Your task to perform on an android device: toggle notifications settings in the gmail app Image 0: 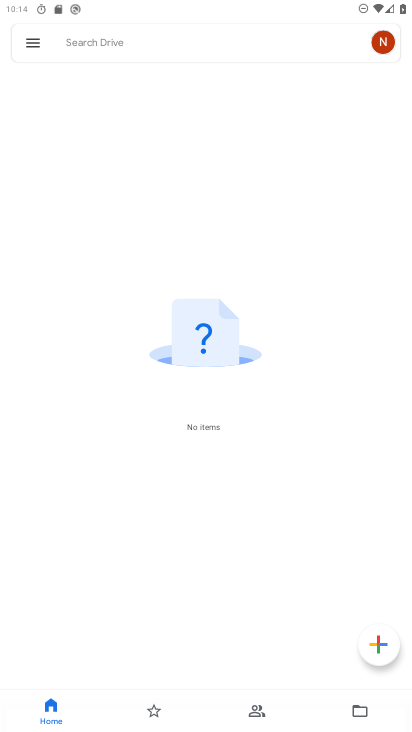
Step 0: press home button
Your task to perform on an android device: toggle notifications settings in the gmail app Image 1: 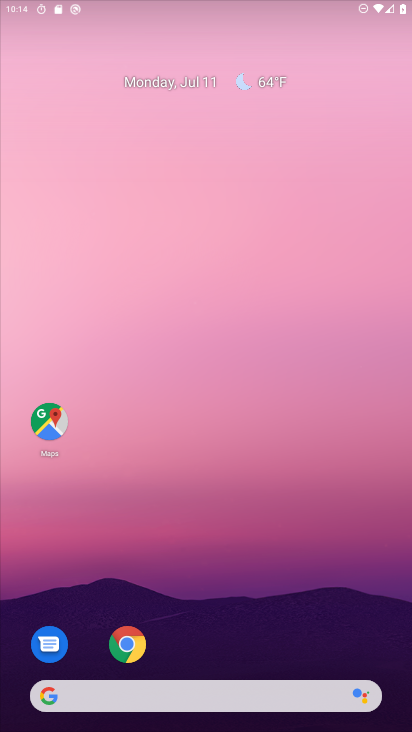
Step 1: drag from (336, 615) to (266, 152)
Your task to perform on an android device: toggle notifications settings in the gmail app Image 2: 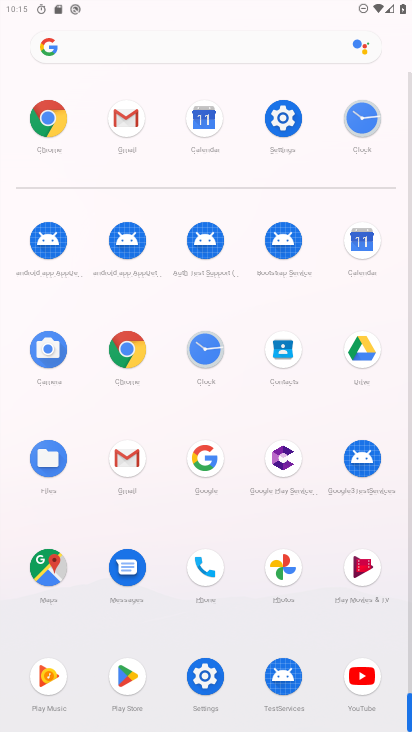
Step 2: click (125, 120)
Your task to perform on an android device: toggle notifications settings in the gmail app Image 3: 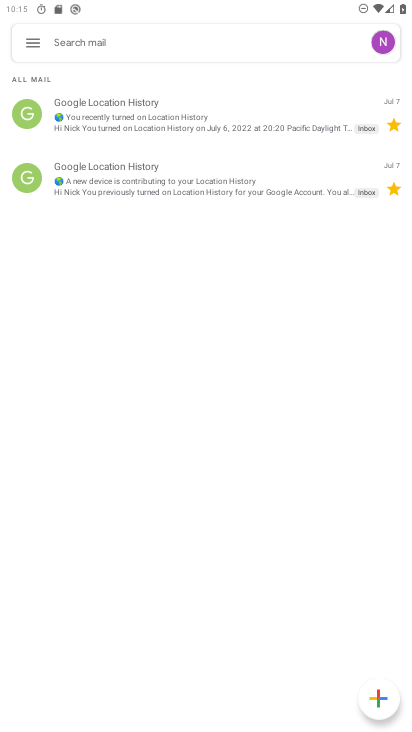
Step 3: click (27, 39)
Your task to perform on an android device: toggle notifications settings in the gmail app Image 4: 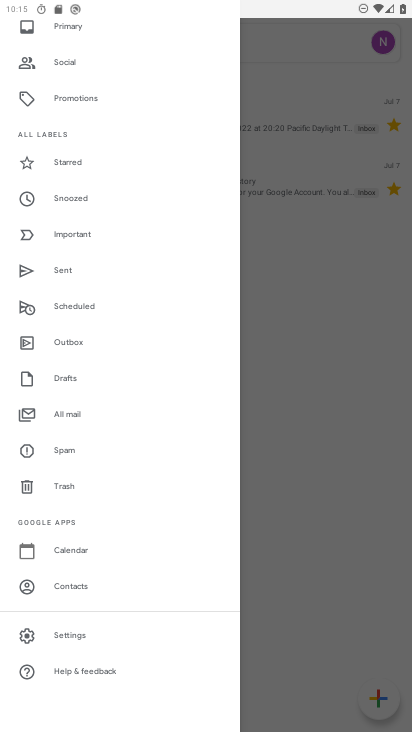
Step 4: click (63, 631)
Your task to perform on an android device: toggle notifications settings in the gmail app Image 5: 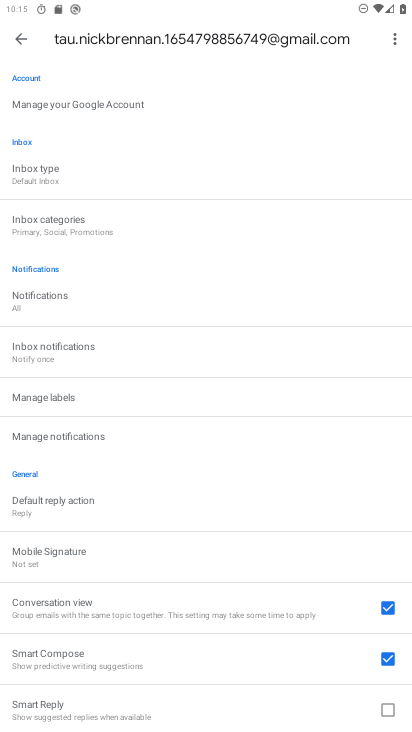
Step 5: click (89, 444)
Your task to perform on an android device: toggle notifications settings in the gmail app Image 6: 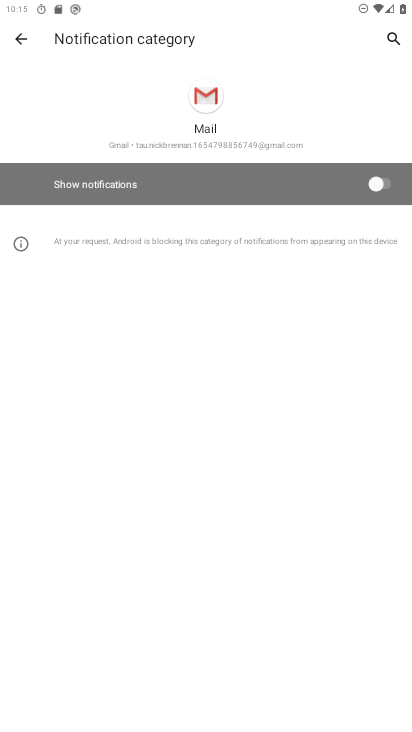
Step 6: click (382, 180)
Your task to perform on an android device: toggle notifications settings in the gmail app Image 7: 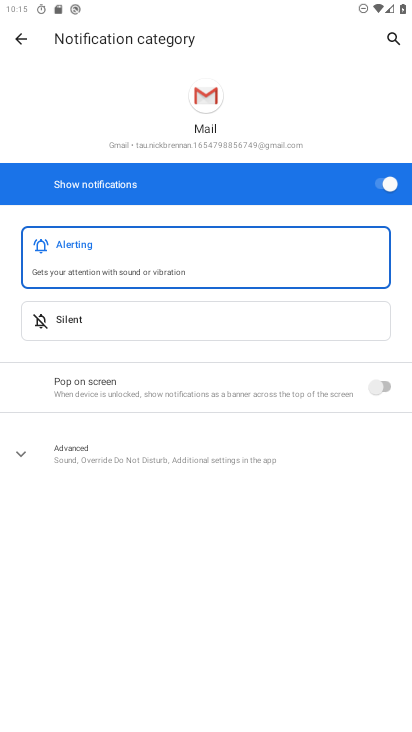
Step 7: task complete